Your task to perform on an android device: turn off javascript in the chrome app Image 0: 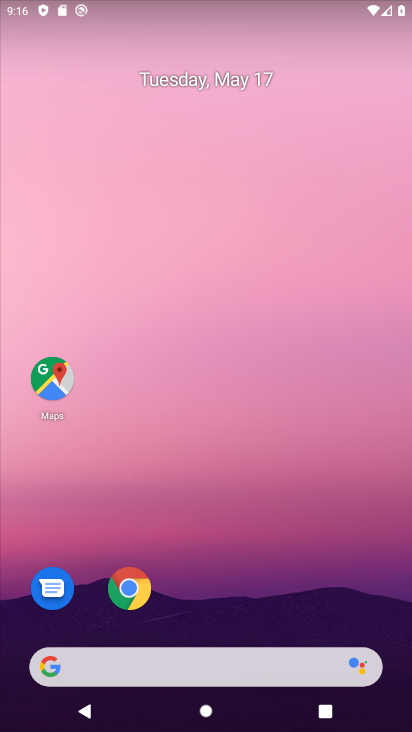
Step 0: click (136, 589)
Your task to perform on an android device: turn off javascript in the chrome app Image 1: 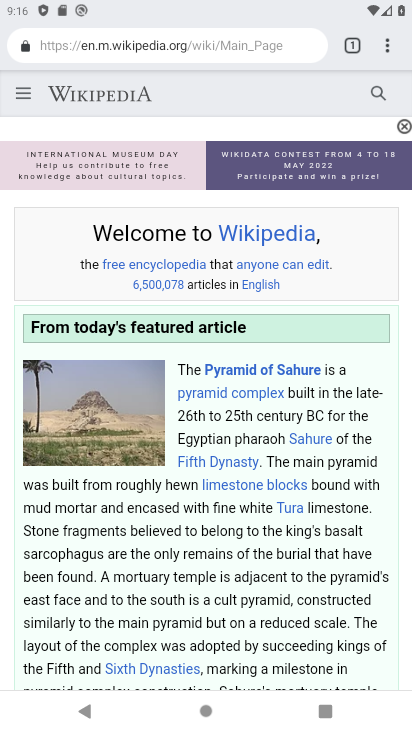
Step 1: click (386, 51)
Your task to perform on an android device: turn off javascript in the chrome app Image 2: 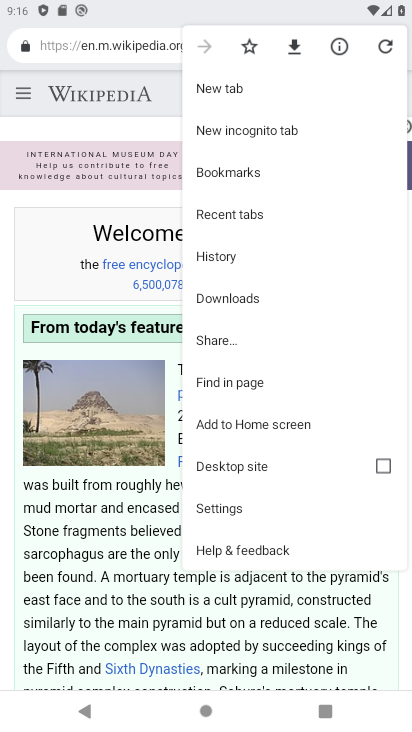
Step 2: click (220, 509)
Your task to perform on an android device: turn off javascript in the chrome app Image 3: 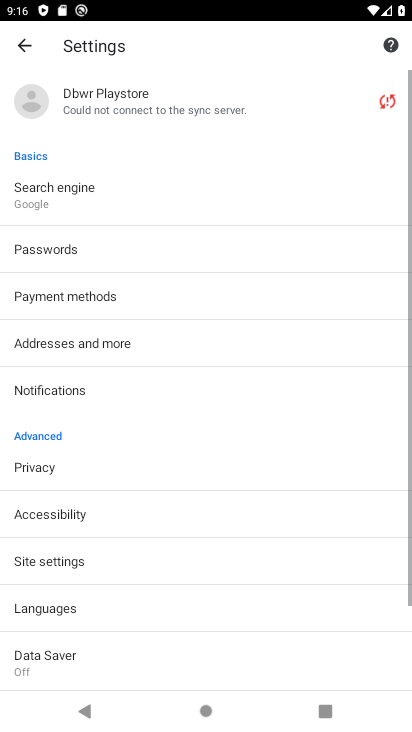
Step 3: drag from (253, 484) to (218, 100)
Your task to perform on an android device: turn off javascript in the chrome app Image 4: 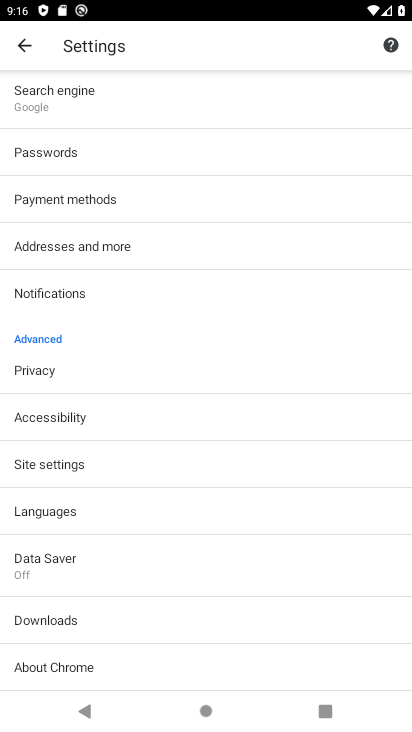
Step 4: click (54, 475)
Your task to perform on an android device: turn off javascript in the chrome app Image 5: 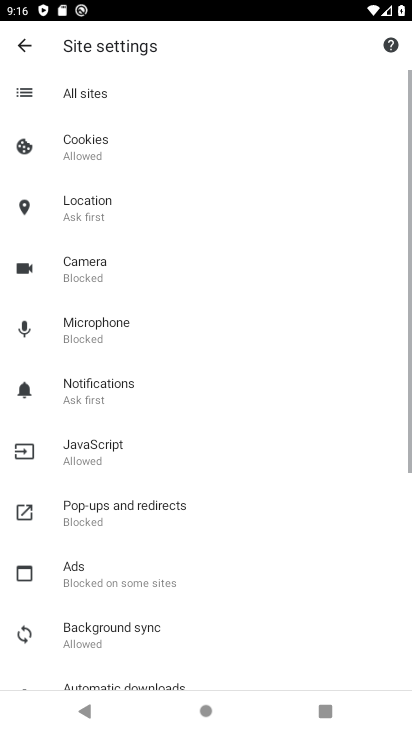
Step 5: click (93, 462)
Your task to perform on an android device: turn off javascript in the chrome app Image 6: 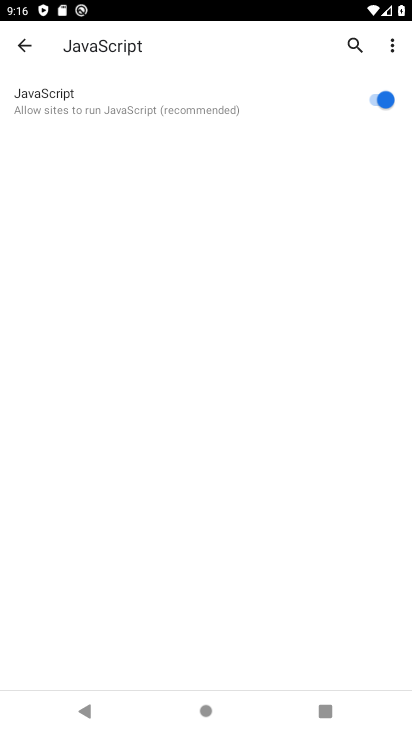
Step 6: click (379, 100)
Your task to perform on an android device: turn off javascript in the chrome app Image 7: 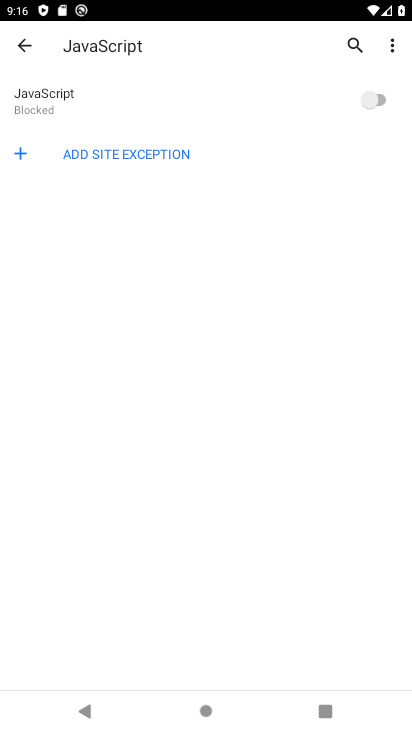
Step 7: task complete